Your task to perform on an android device: stop showing notifications on the lock screen Image 0: 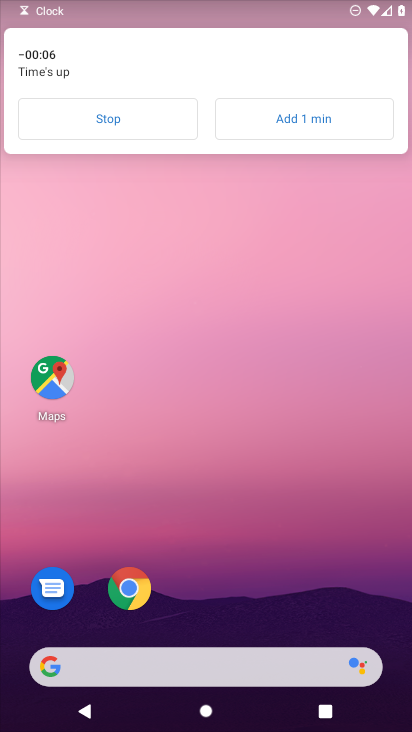
Step 0: press home button
Your task to perform on an android device: stop showing notifications on the lock screen Image 1: 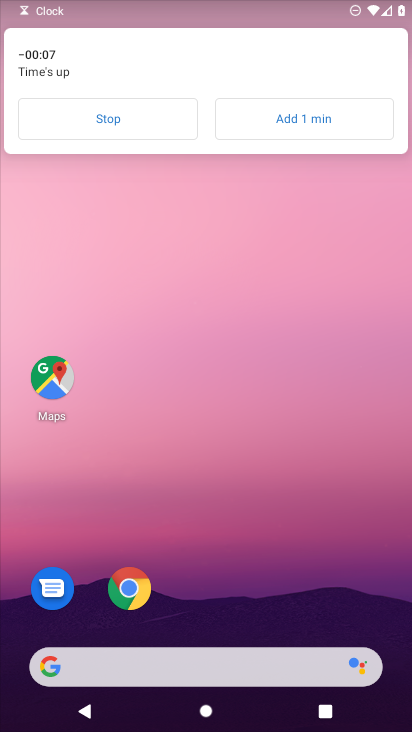
Step 1: drag from (231, 682) to (231, 327)
Your task to perform on an android device: stop showing notifications on the lock screen Image 2: 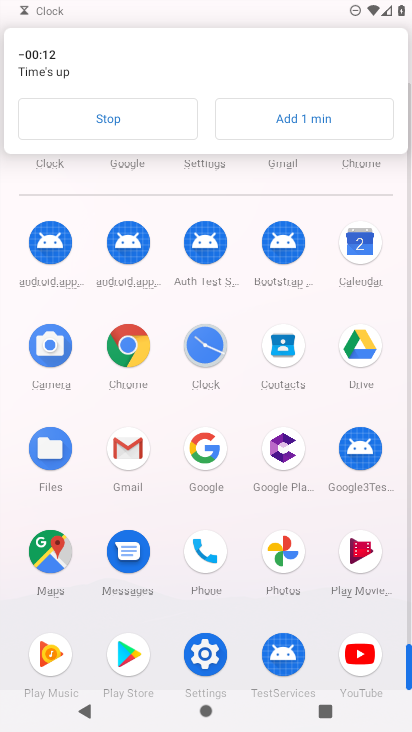
Step 2: drag from (204, 454) to (209, 349)
Your task to perform on an android device: stop showing notifications on the lock screen Image 3: 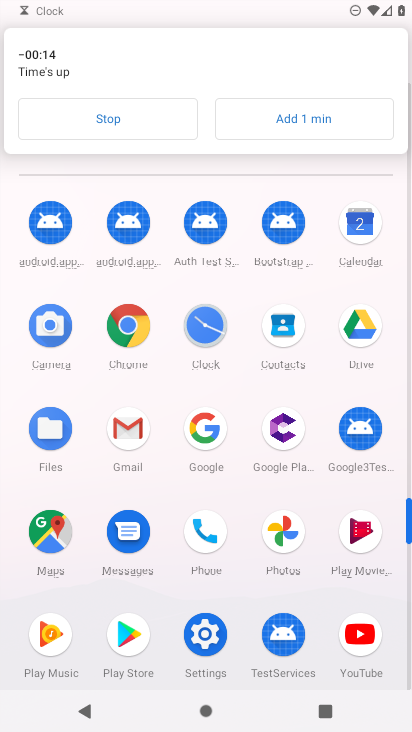
Step 3: drag from (260, 522) to (279, 280)
Your task to perform on an android device: stop showing notifications on the lock screen Image 4: 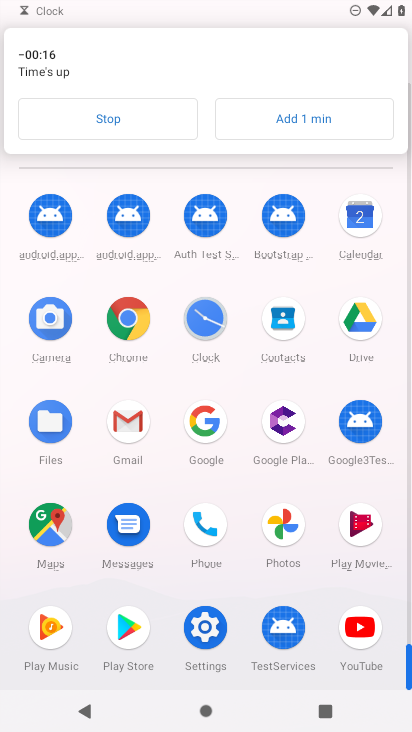
Step 4: click (213, 637)
Your task to perform on an android device: stop showing notifications on the lock screen Image 5: 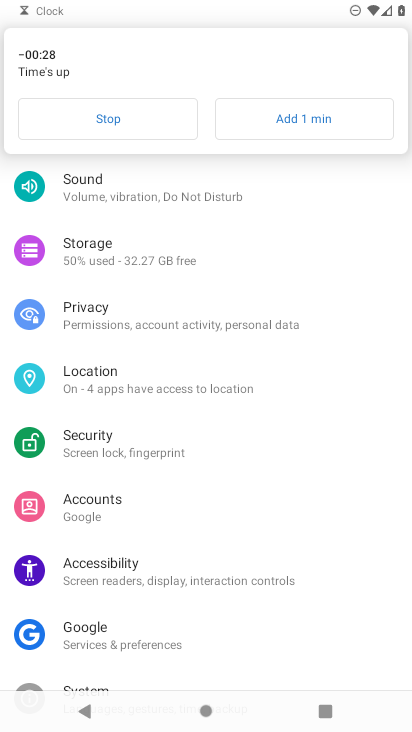
Step 5: drag from (189, 450) to (188, 613)
Your task to perform on an android device: stop showing notifications on the lock screen Image 6: 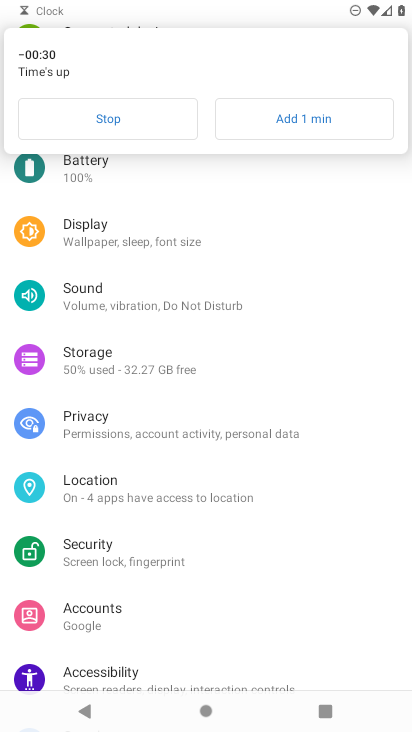
Step 6: drag from (237, 445) to (241, 601)
Your task to perform on an android device: stop showing notifications on the lock screen Image 7: 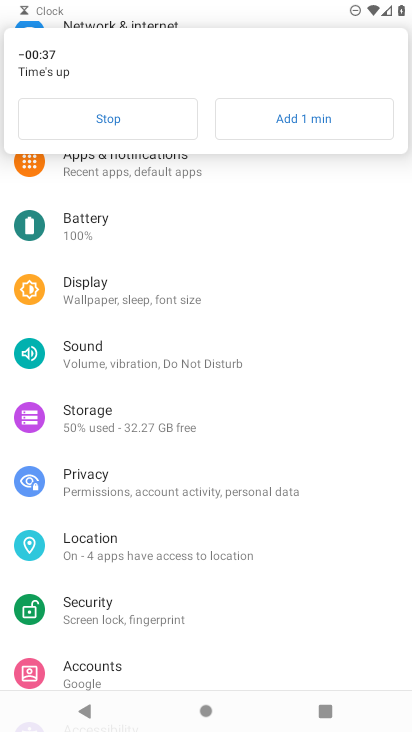
Step 7: click (177, 181)
Your task to perform on an android device: stop showing notifications on the lock screen Image 8: 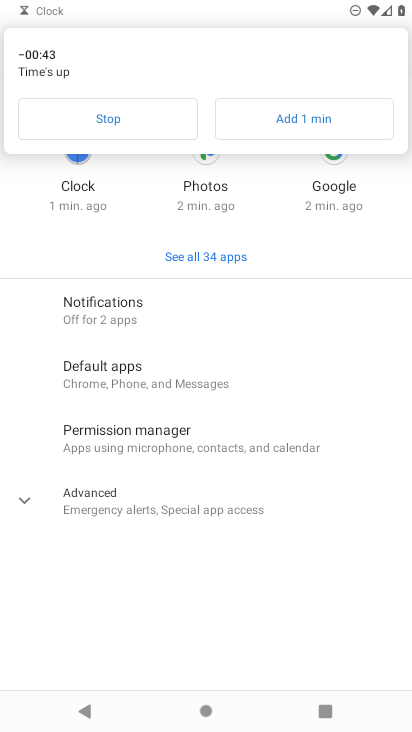
Step 8: click (160, 310)
Your task to perform on an android device: stop showing notifications on the lock screen Image 9: 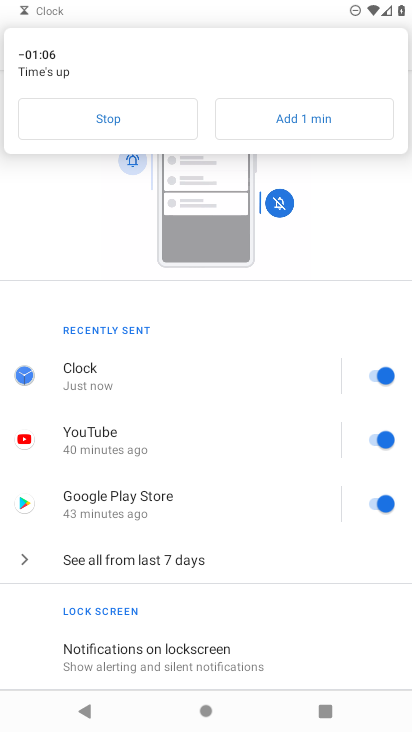
Step 9: click (205, 669)
Your task to perform on an android device: stop showing notifications on the lock screen Image 10: 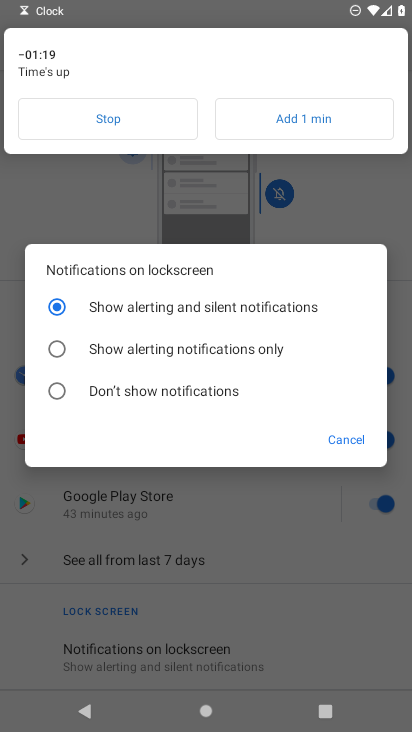
Step 10: click (151, 401)
Your task to perform on an android device: stop showing notifications on the lock screen Image 11: 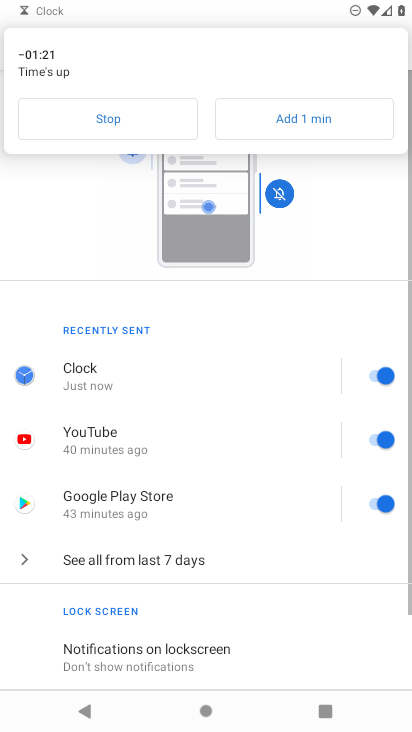
Step 11: task complete